Your task to perform on an android device: Toggle the flashlight Image 0: 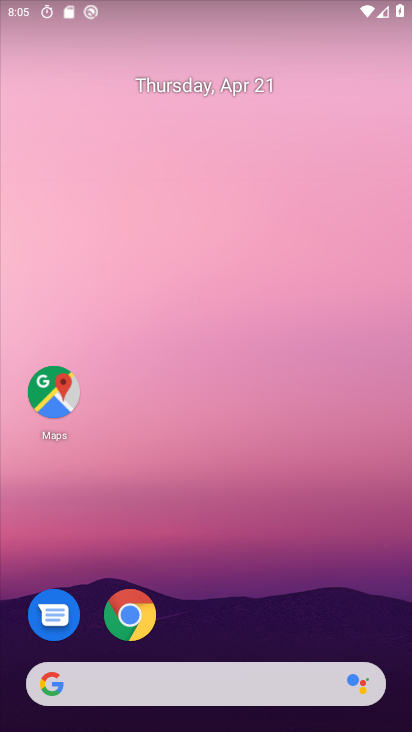
Step 0: drag from (229, 7) to (232, 279)
Your task to perform on an android device: Toggle the flashlight Image 1: 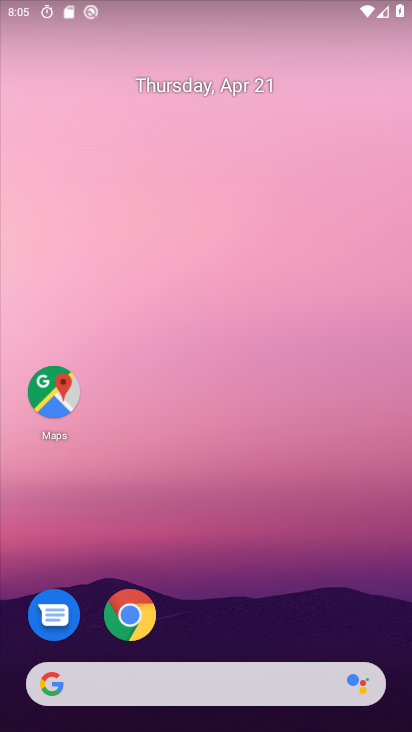
Step 1: drag from (246, 6) to (236, 309)
Your task to perform on an android device: Toggle the flashlight Image 2: 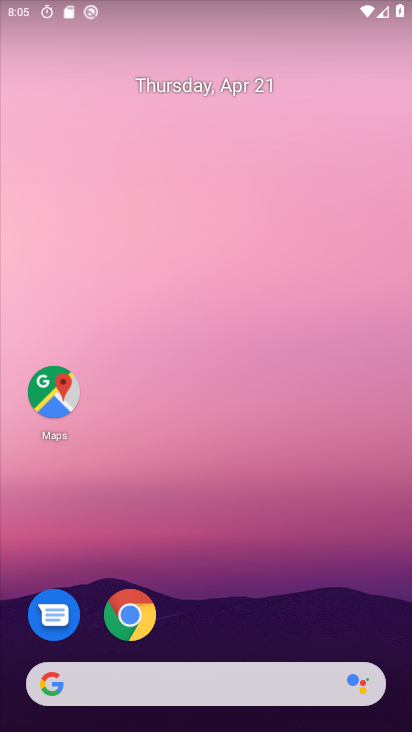
Step 2: drag from (225, 4) to (210, 371)
Your task to perform on an android device: Toggle the flashlight Image 3: 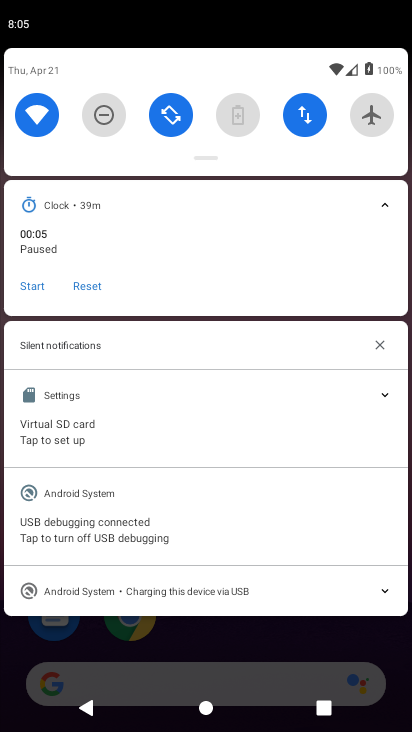
Step 3: drag from (205, 142) to (203, 412)
Your task to perform on an android device: Toggle the flashlight Image 4: 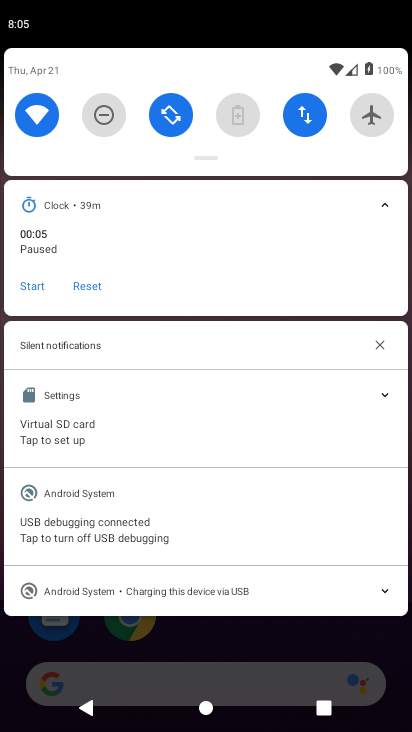
Step 4: drag from (205, 133) to (188, 492)
Your task to perform on an android device: Toggle the flashlight Image 5: 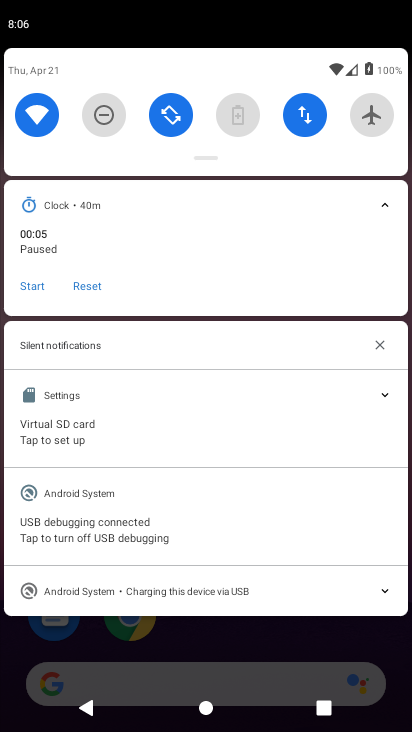
Step 5: drag from (210, 134) to (219, 502)
Your task to perform on an android device: Toggle the flashlight Image 6: 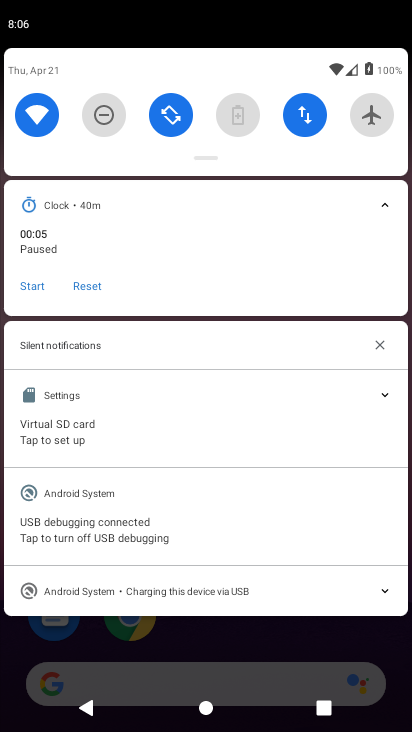
Step 6: click (89, 175)
Your task to perform on an android device: Toggle the flashlight Image 7: 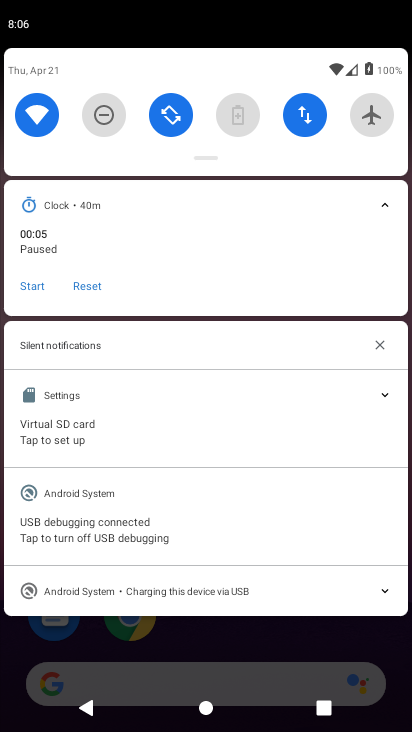
Step 7: task complete